Your task to perform on an android device: What's the weather? Image 0: 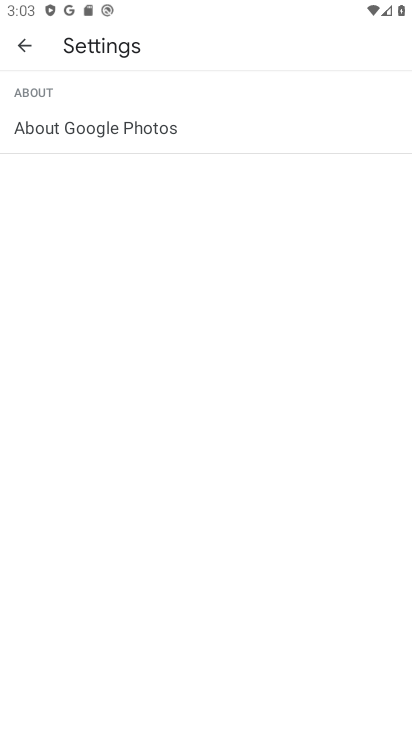
Step 0: press home button
Your task to perform on an android device: What's the weather? Image 1: 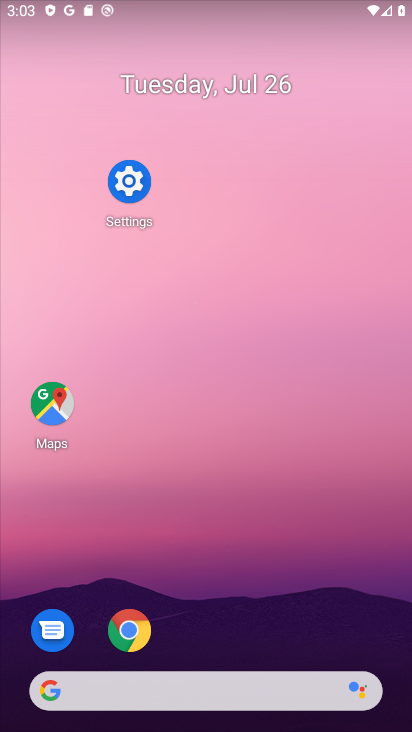
Step 1: drag from (255, 618) to (279, 150)
Your task to perform on an android device: What's the weather? Image 2: 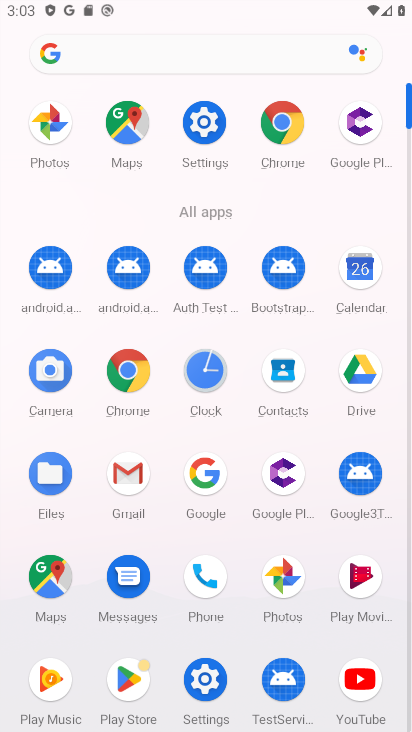
Step 2: click (218, 481)
Your task to perform on an android device: What's the weather? Image 3: 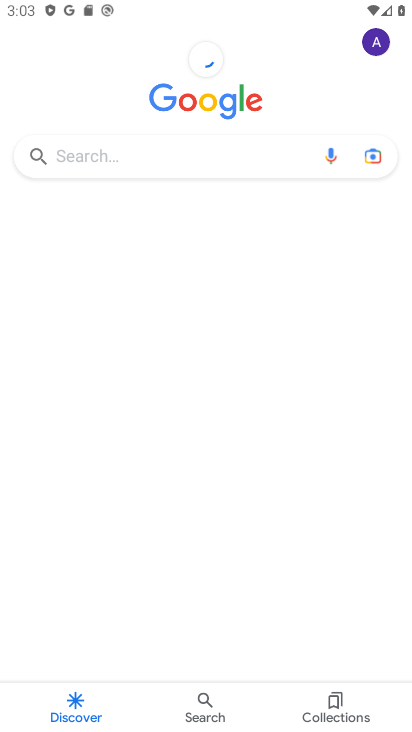
Step 3: click (180, 155)
Your task to perform on an android device: What's the weather? Image 4: 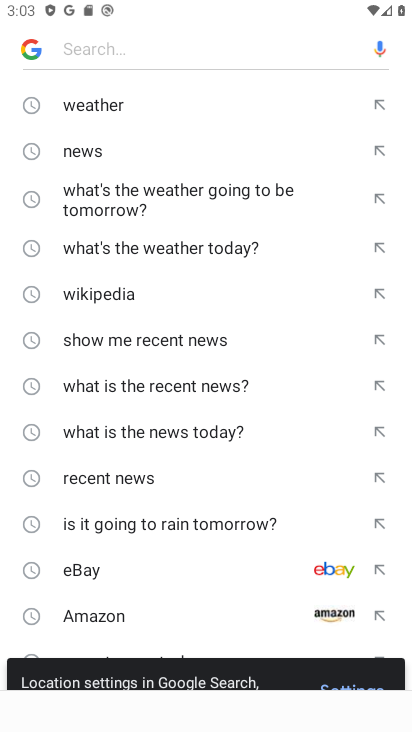
Step 4: click (120, 110)
Your task to perform on an android device: What's the weather? Image 5: 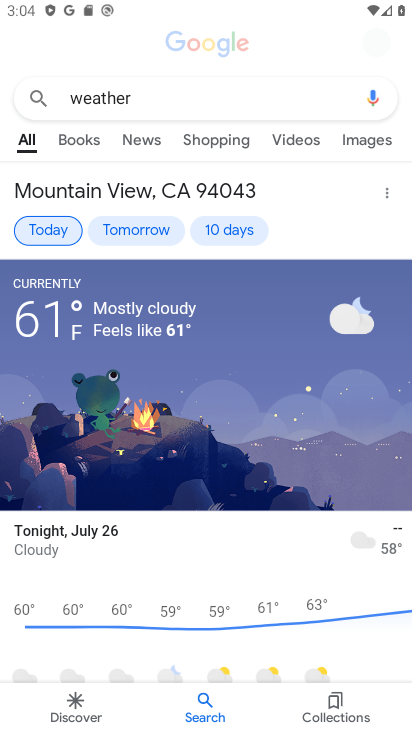
Step 5: task complete